Your task to perform on an android device: Go to privacy settings Image 0: 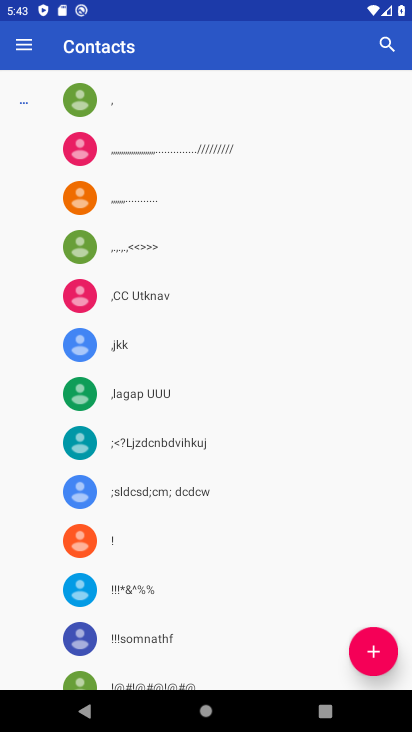
Step 0: press home button
Your task to perform on an android device: Go to privacy settings Image 1: 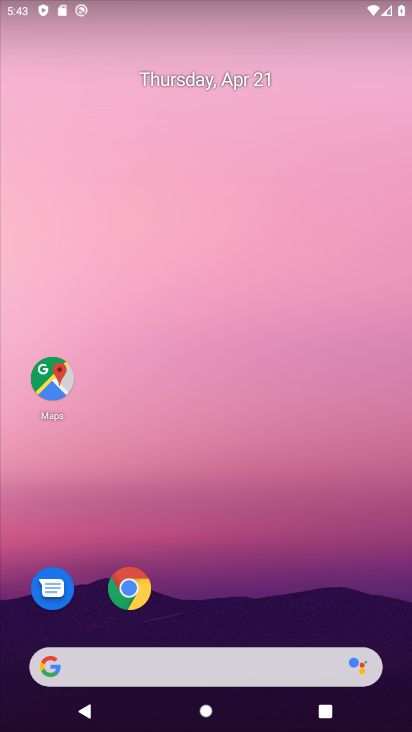
Step 1: drag from (320, 589) to (235, 139)
Your task to perform on an android device: Go to privacy settings Image 2: 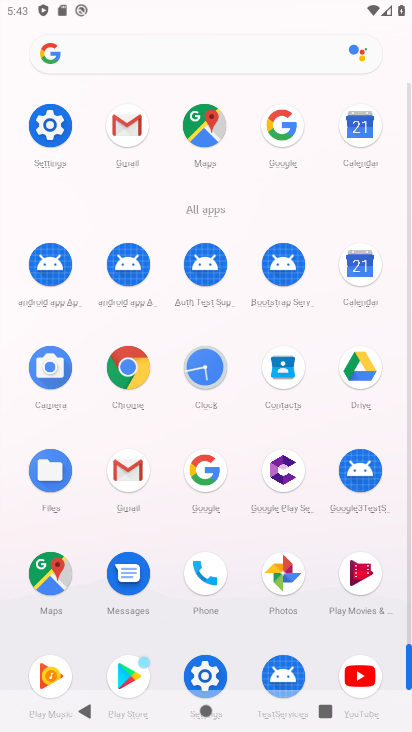
Step 2: click (36, 125)
Your task to perform on an android device: Go to privacy settings Image 3: 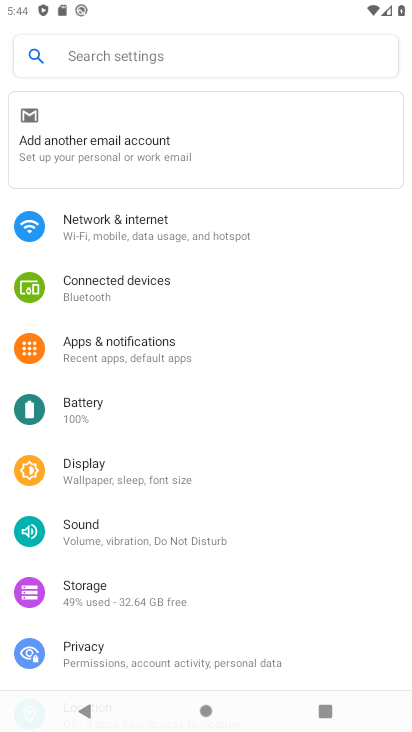
Step 3: click (128, 641)
Your task to perform on an android device: Go to privacy settings Image 4: 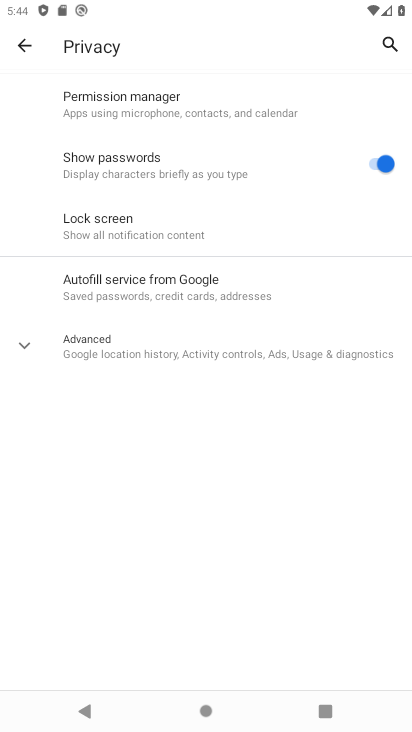
Step 4: task complete